Your task to perform on an android device: change the upload size in google photos Image 0: 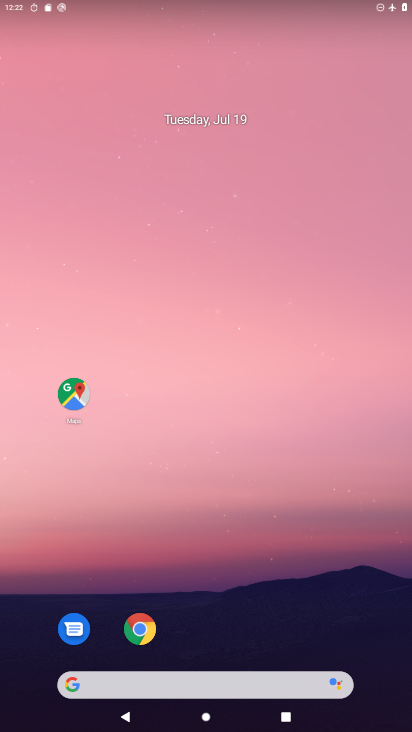
Step 0: drag from (353, 615) to (325, 87)
Your task to perform on an android device: change the upload size in google photos Image 1: 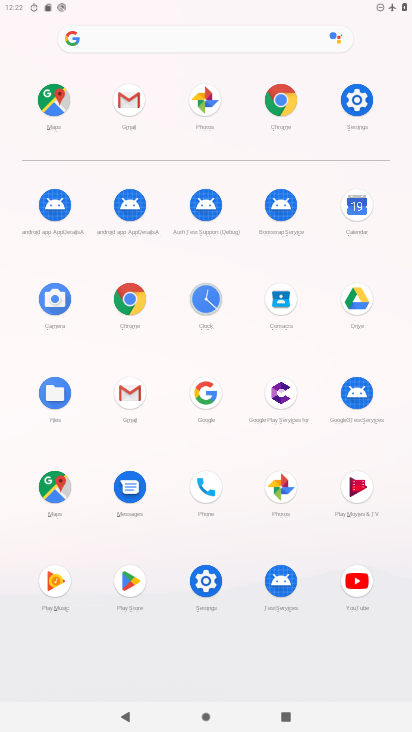
Step 1: click (284, 493)
Your task to perform on an android device: change the upload size in google photos Image 2: 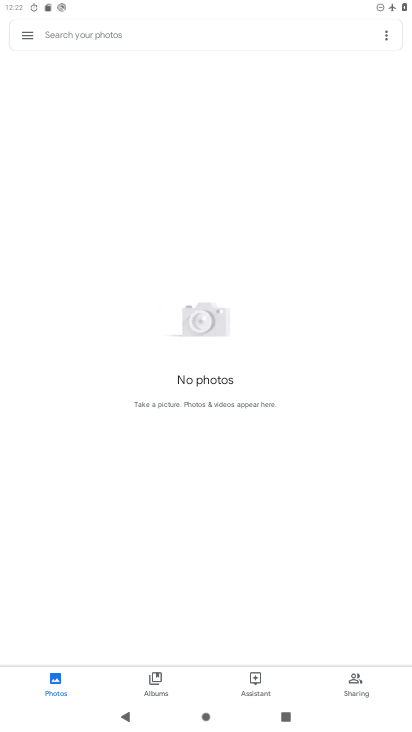
Step 2: click (22, 33)
Your task to perform on an android device: change the upload size in google photos Image 3: 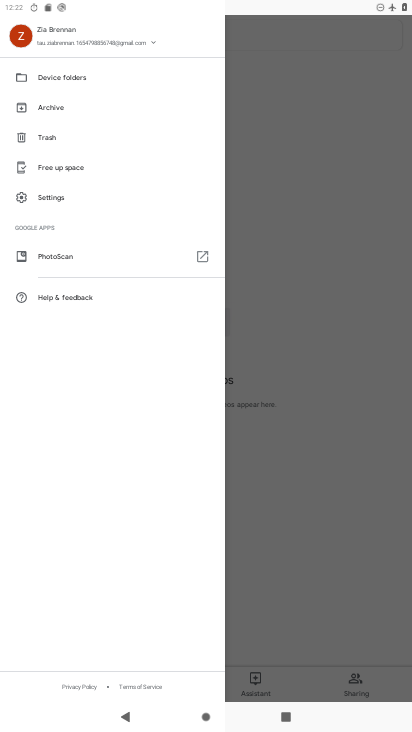
Step 3: click (54, 189)
Your task to perform on an android device: change the upload size in google photos Image 4: 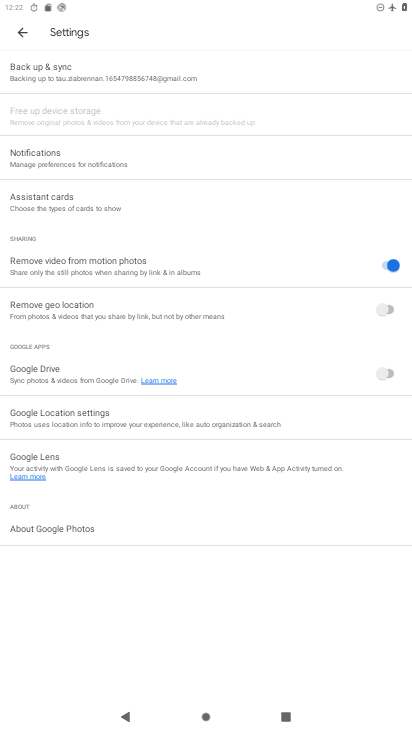
Step 4: click (80, 80)
Your task to perform on an android device: change the upload size in google photos Image 5: 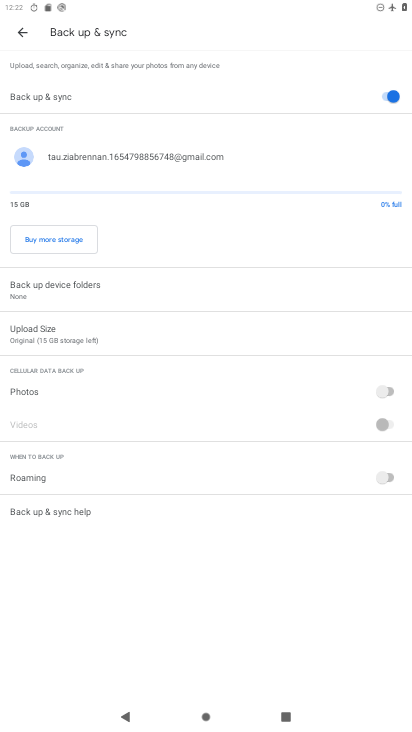
Step 5: click (95, 337)
Your task to perform on an android device: change the upload size in google photos Image 6: 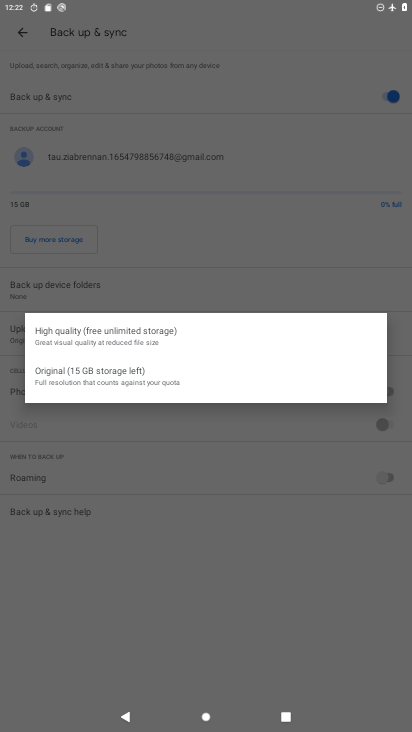
Step 6: click (100, 334)
Your task to perform on an android device: change the upload size in google photos Image 7: 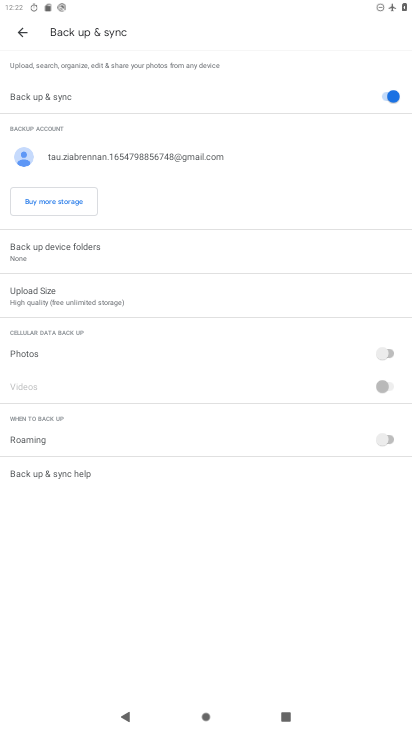
Step 7: task complete